Your task to perform on an android device: See recent photos Image 0: 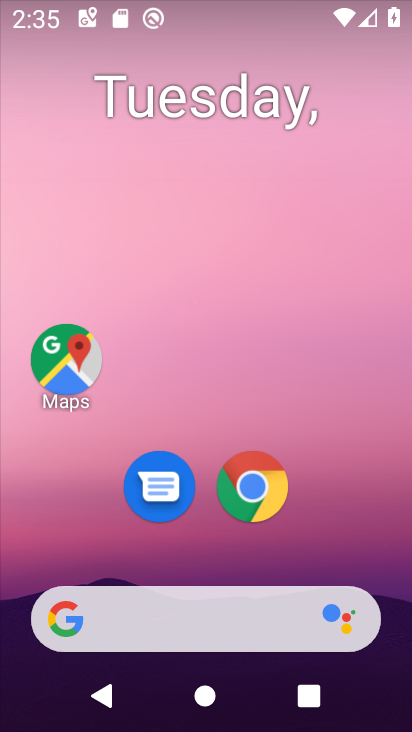
Step 0: press home button
Your task to perform on an android device: See recent photos Image 1: 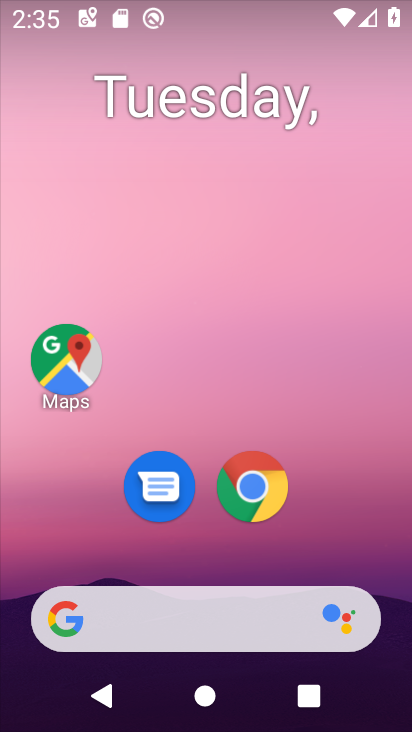
Step 1: drag from (212, 542) to (251, 43)
Your task to perform on an android device: See recent photos Image 2: 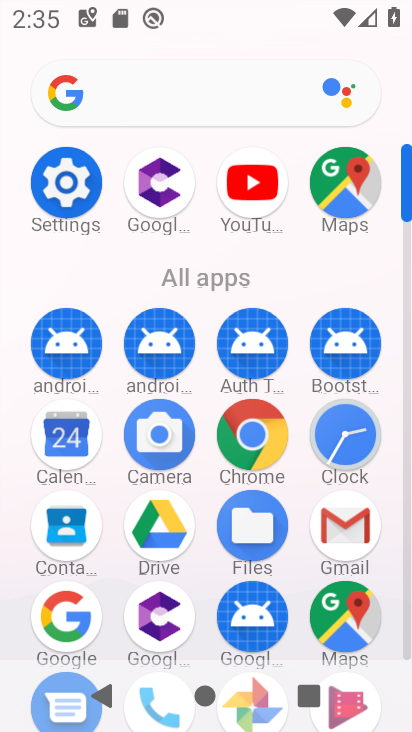
Step 2: drag from (202, 646) to (232, 142)
Your task to perform on an android device: See recent photos Image 3: 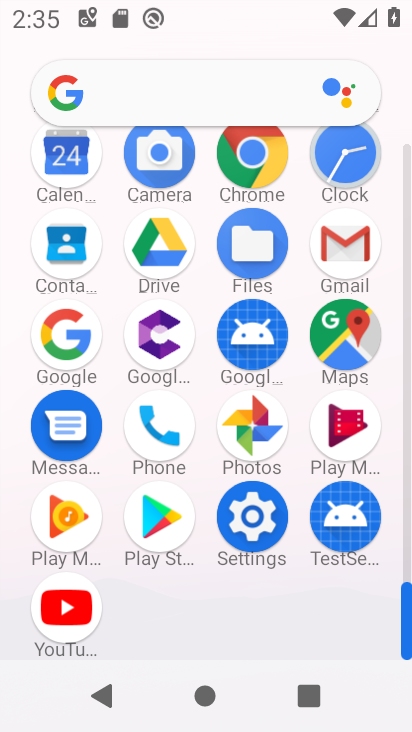
Step 3: click (248, 418)
Your task to perform on an android device: See recent photos Image 4: 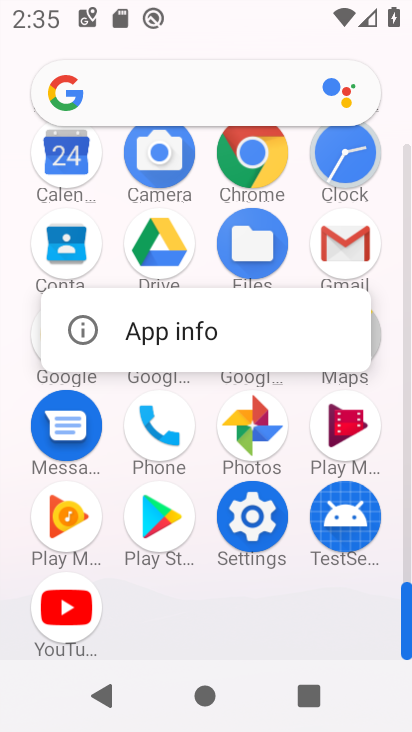
Step 4: click (249, 415)
Your task to perform on an android device: See recent photos Image 5: 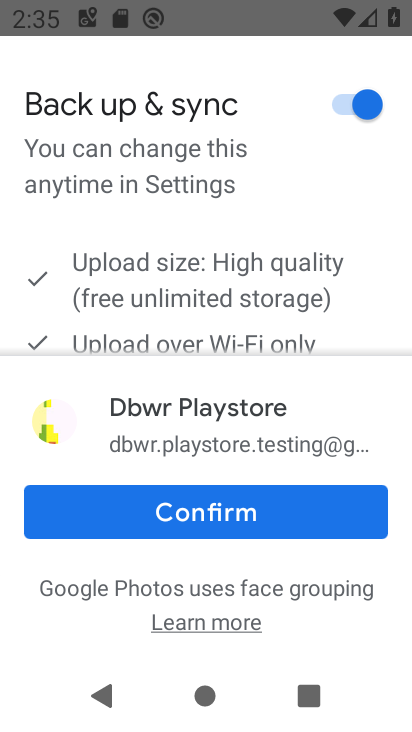
Step 5: click (193, 508)
Your task to perform on an android device: See recent photos Image 6: 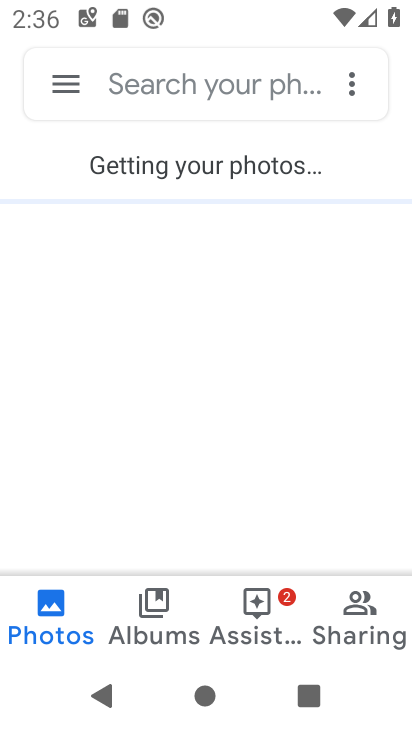
Step 6: task complete